Your task to perform on an android device: Open Google Maps and go to "Timeline" Image 0: 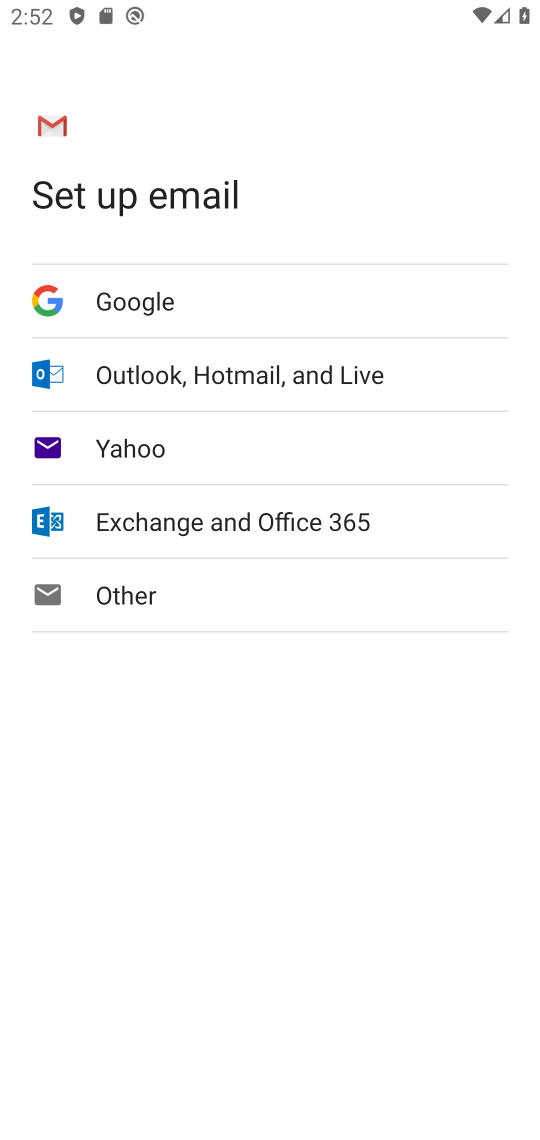
Step 0: press home button
Your task to perform on an android device: Open Google Maps and go to "Timeline" Image 1: 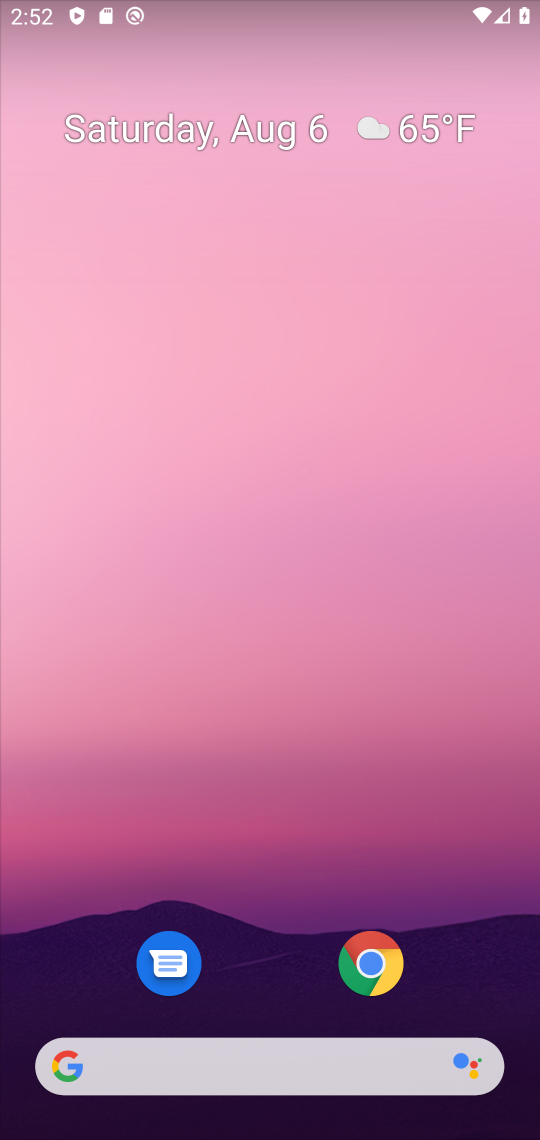
Step 1: drag from (499, 969) to (386, 211)
Your task to perform on an android device: Open Google Maps and go to "Timeline" Image 2: 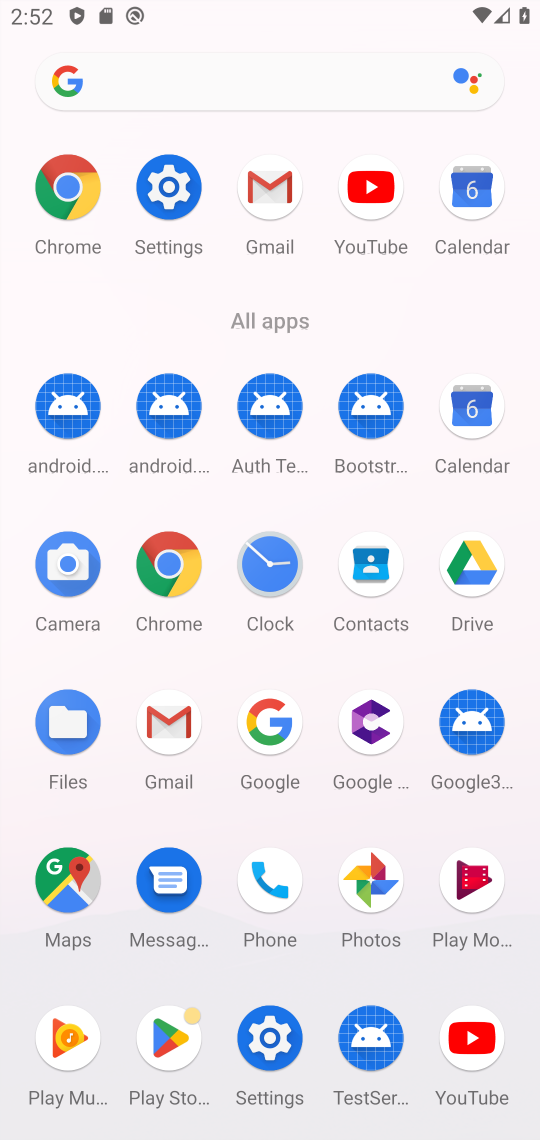
Step 2: click (56, 881)
Your task to perform on an android device: Open Google Maps and go to "Timeline" Image 3: 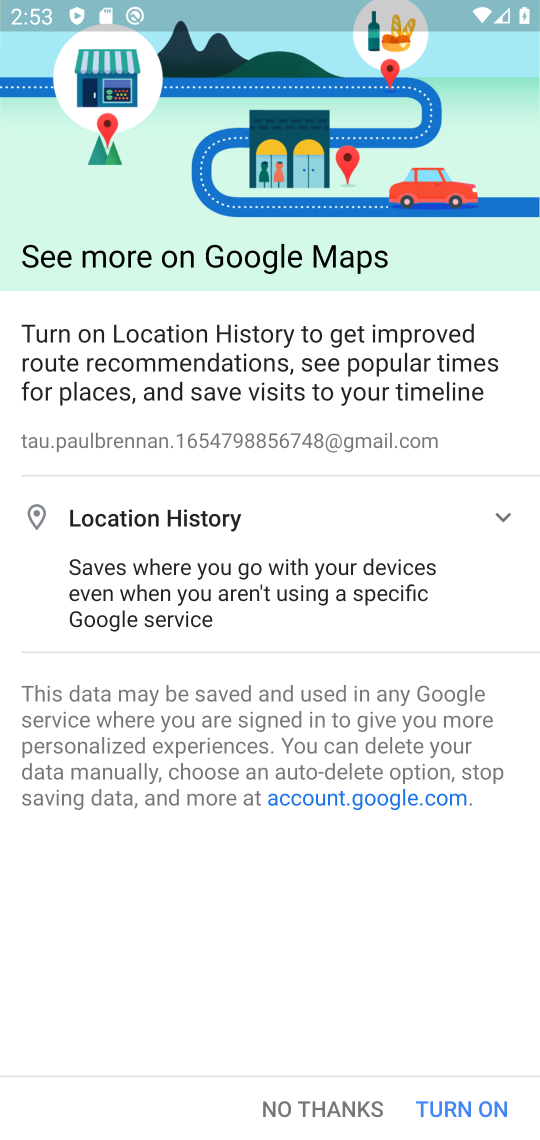
Step 3: click (490, 1103)
Your task to perform on an android device: Open Google Maps and go to "Timeline" Image 4: 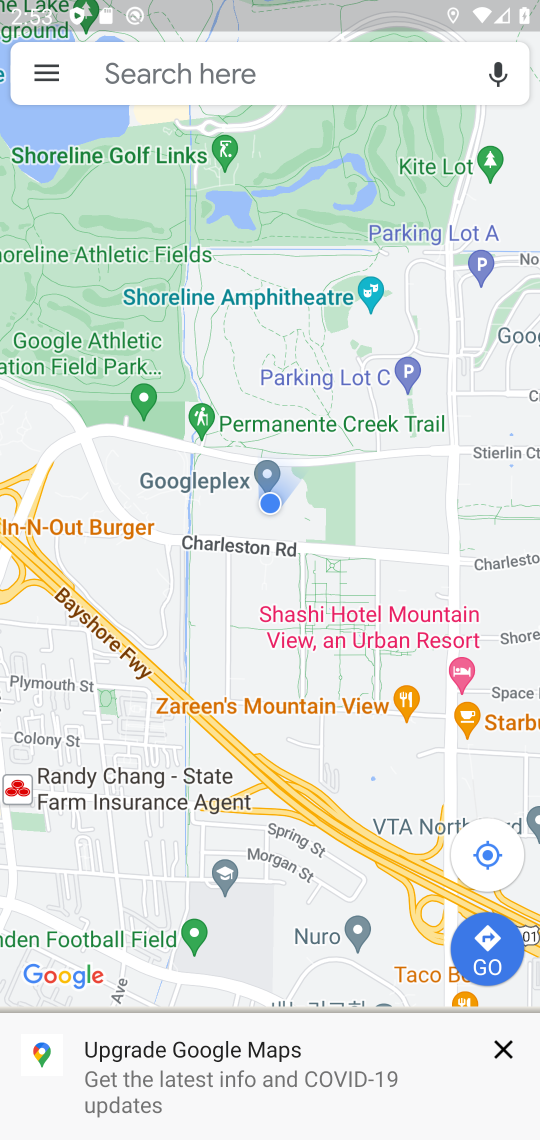
Step 4: click (38, 85)
Your task to perform on an android device: Open Google Maps and go to "Timeline" Image 5: 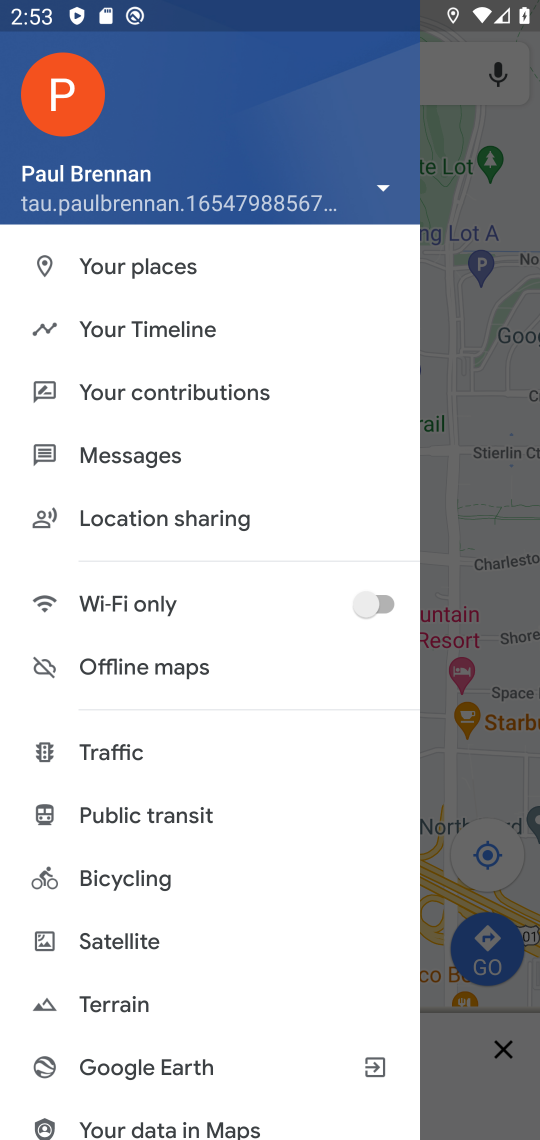
Step 5: click (134, 318)
Your task to perform on an android device: Open Google Maps and go to "Timeline" Image 6: 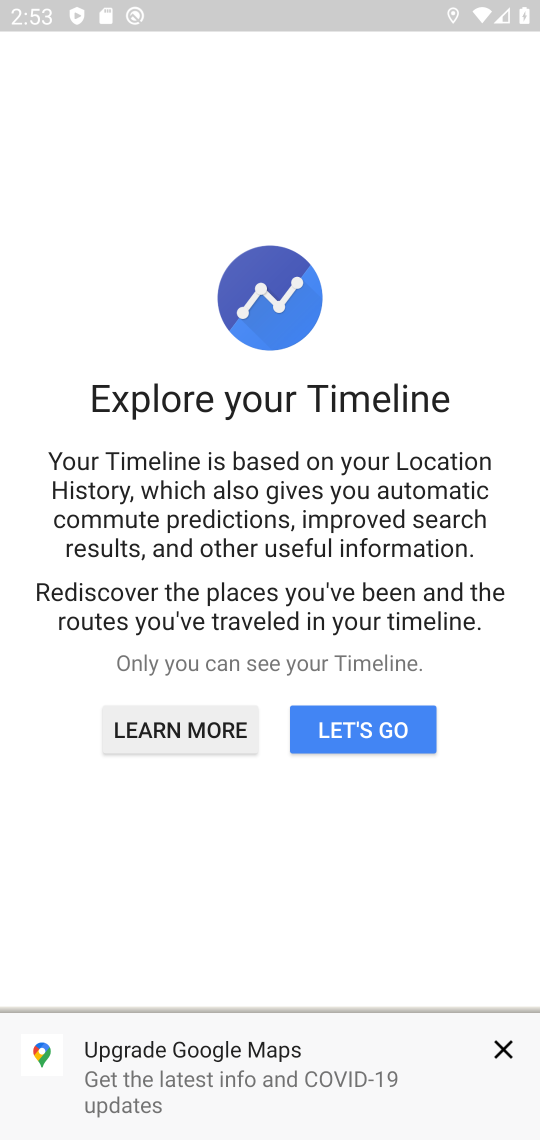
Step 6: click (382, 723)
Your task to perform on an android device: Open Google Maps and go to "Timeline" Image 7: 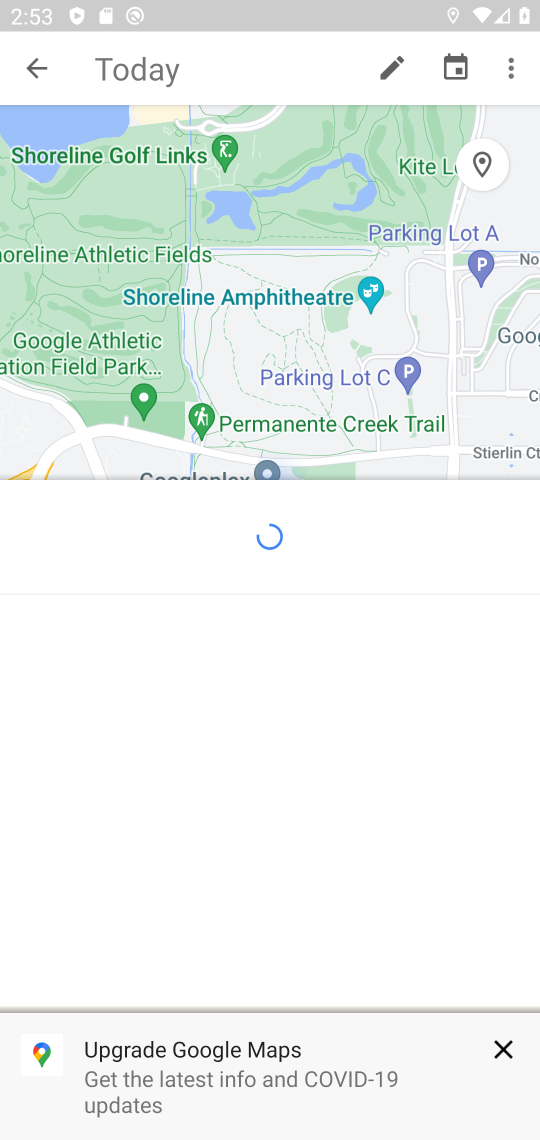
Step 7: task complete